Your task to perform on an android device: check storage Image 0: 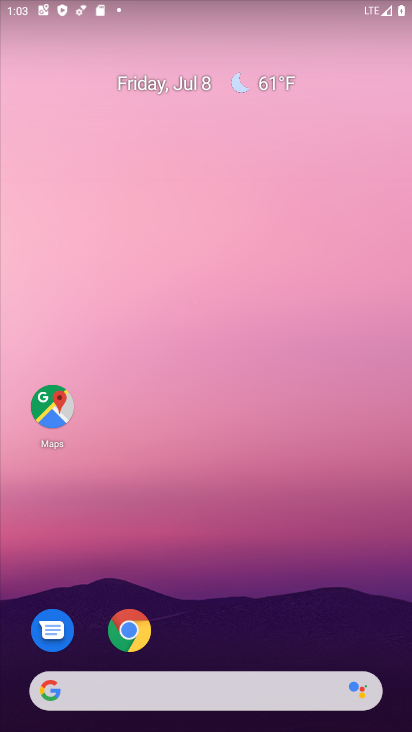
Step 0: drag from (390, 667) to (281, 0)
Your task to perform on an android device: check storage Image 1: 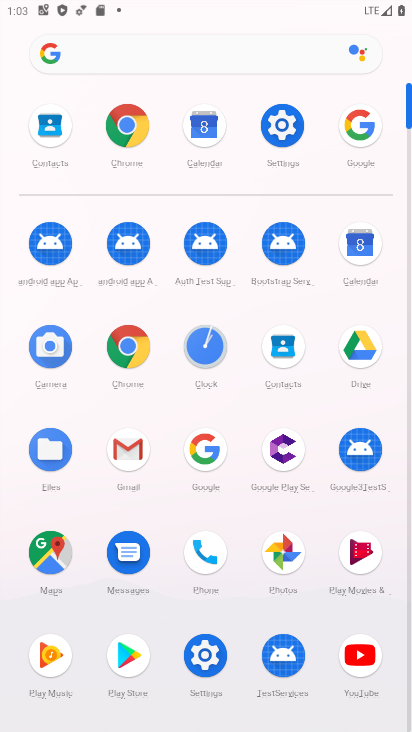
Step 1: click (202, 637)
Your task to perform on an android device: check storage Image 2: 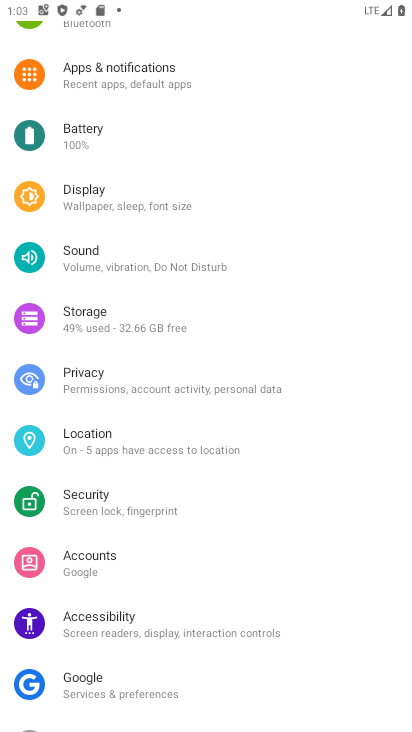
Step 2: click (106, 314)
Your task to perform on an android device: check storage Image 3: 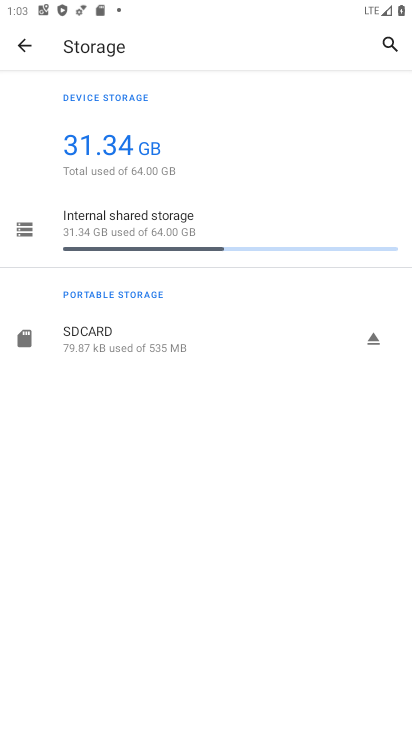
Step 3: click (194, 217)
Your task to perform on an android device: check storage Image 4: 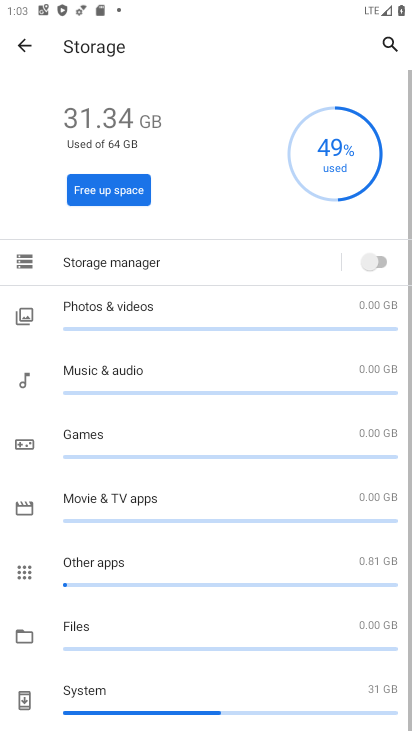
Step 4: task complete